Your task to perform on an android device: turn on javascript in the chrome app Image 0: 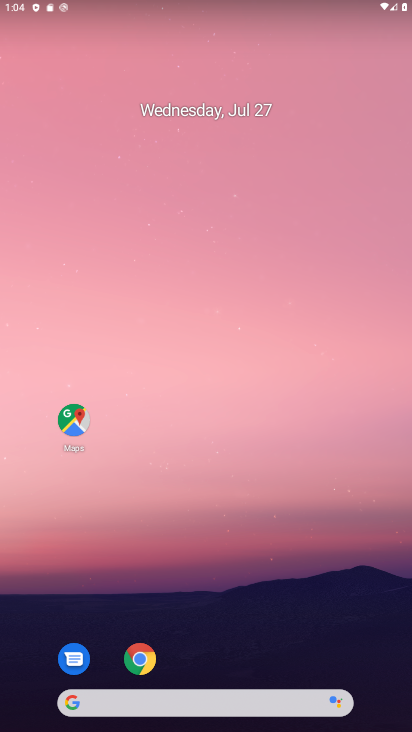
Step 0: drag from (293, 649) to (263, 0)
Your task to perform on an android device: turn on javascript in the chrome app Image 1: 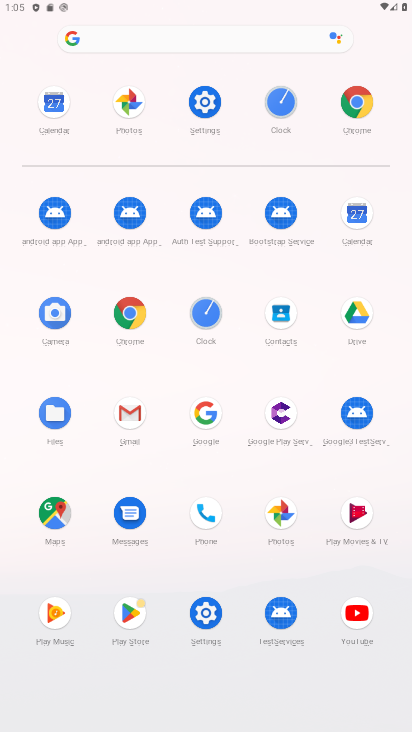
Step 1: click (362, 95)
Your task to perform on an android device: turn on javascript in the chrome app Image 2: 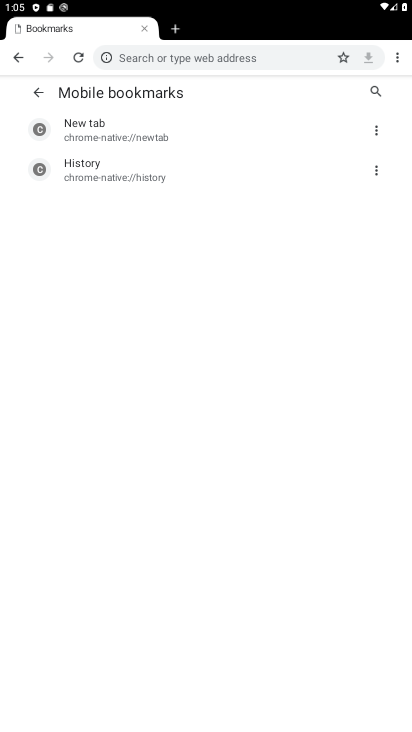
Step 2: drag from (396, 49) to (294, 258)
Your task to perform on an android device: turn on javascript in the chrome app Image 3: 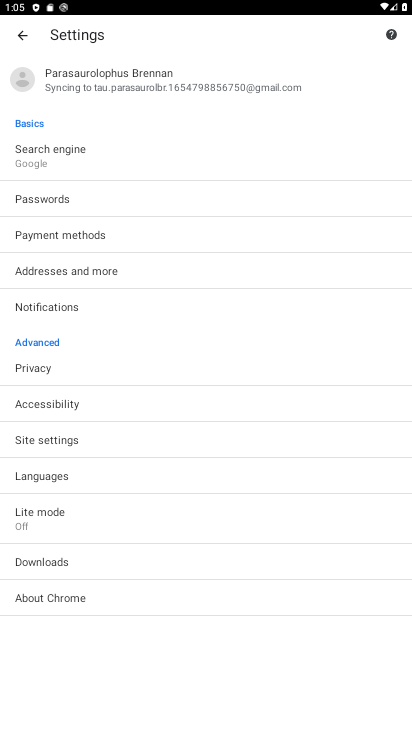
Step 3: click (83, 444)
Your task to perform on an android device: turn on javascript in the chrome app Image 4: 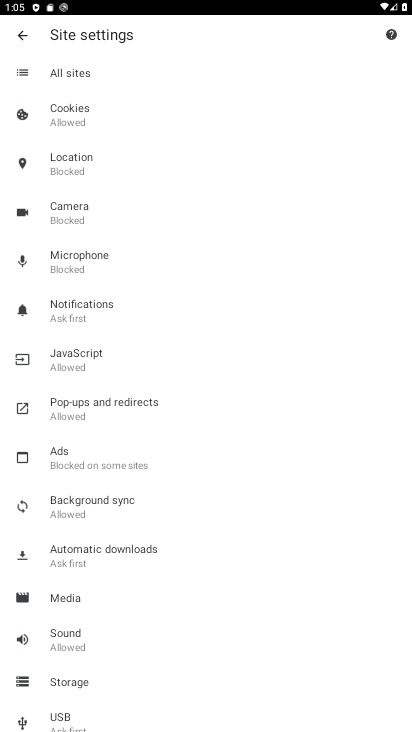
Step 4: click (74, 365)
Your task to perform on an android device: turn on javascript in the chrome app Image 5: 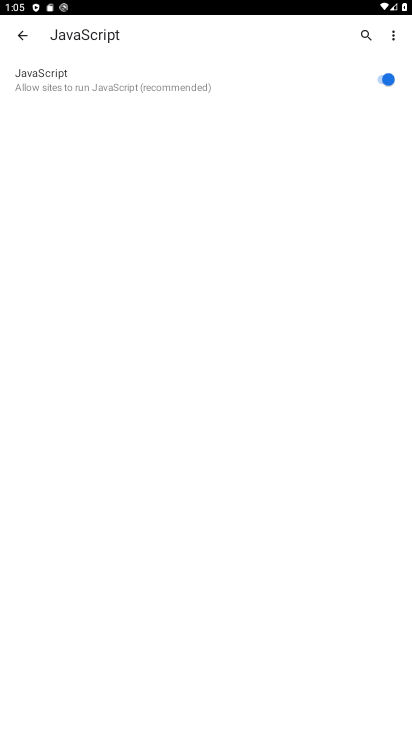
Step 5: task complete